Your task to perform on an android device: Open eBay Image 0: 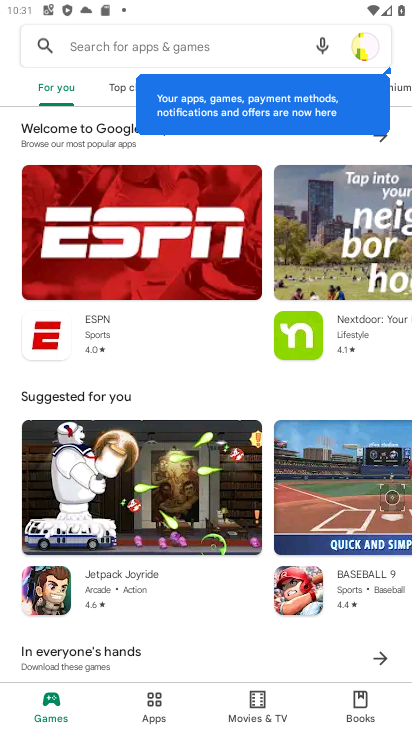
Step 0: press home button
Your task to perform on an android device: Open eBay Image 1: 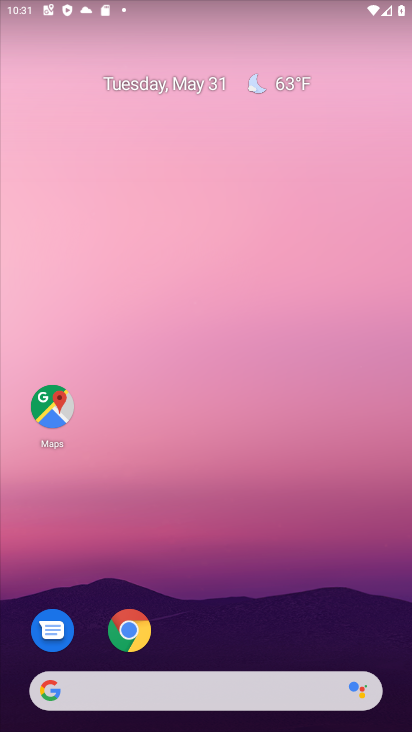
Step 1: drag from (270, 518) to (163, 62)
Your task to perform on an android device: Open eBay Image 2: 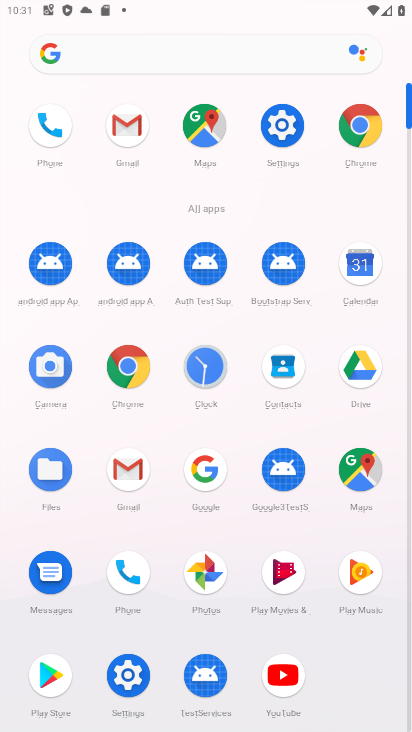
Step 2: click (123, 374)
Your task to perform on an android device: Open eBay Image 3: 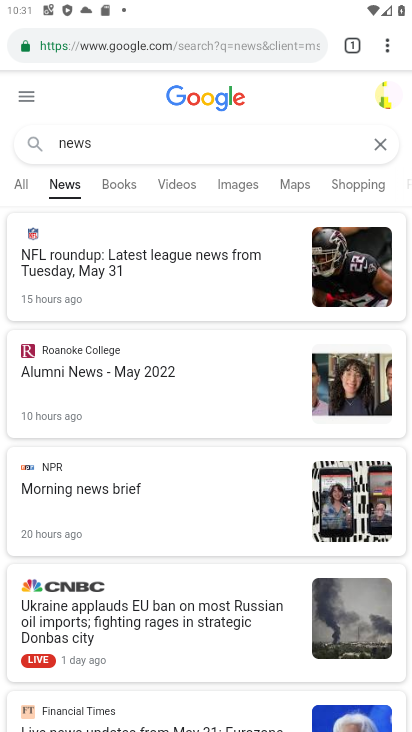
Step 3: click (189, 35)
Your task to perform on an android device: Open eBay Image 4: 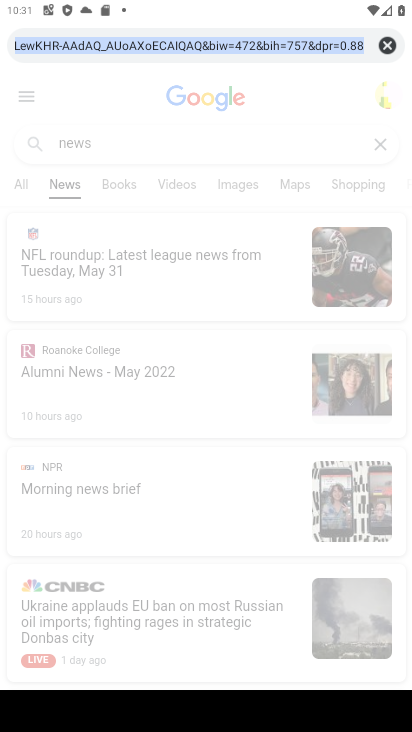
Step 4: type "ebay"
Your task to perform on an android device: Open eBay Image 5: 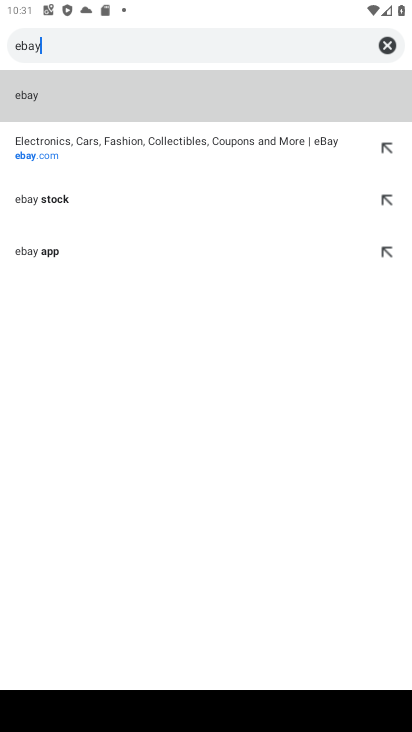
Step 5: click (28, 153)
Your task to perform on an android device: Open eBay Image 6: 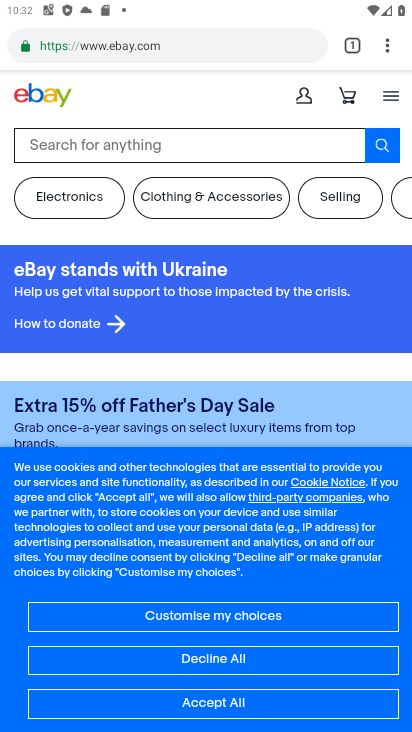
Step 6: task complete